Your task to perform on an android device: Go to settings Image 0: 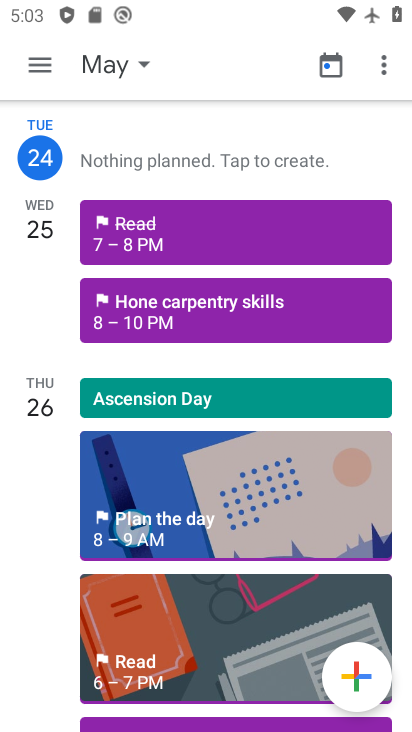
Step 0: drag from (342, 620) to (277, 225)
Your task to perform on an android device: Go to settings Image 1: 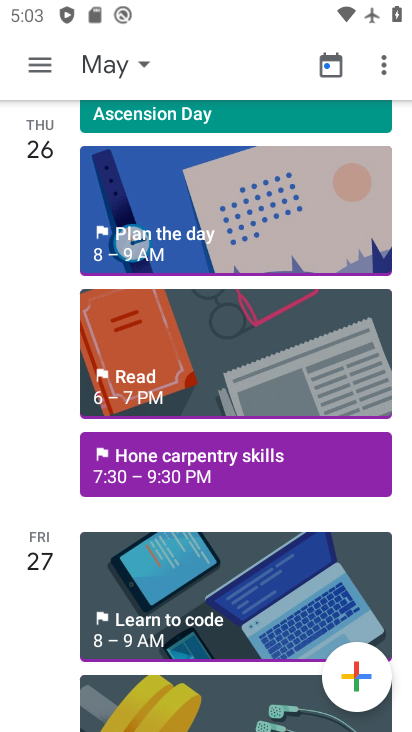
Step 1: press home button
Your task to perform on an android device: Go to settings Image 2: 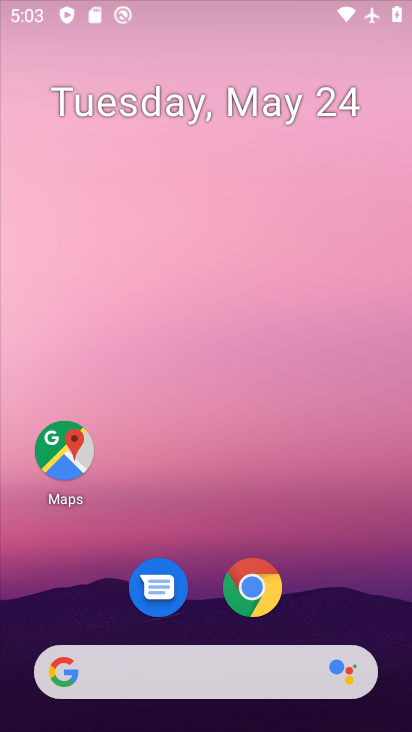
Step 2: drag from (312, 413) to (253, 51)
Your task to perform on an android device: Go to settings Image 3: 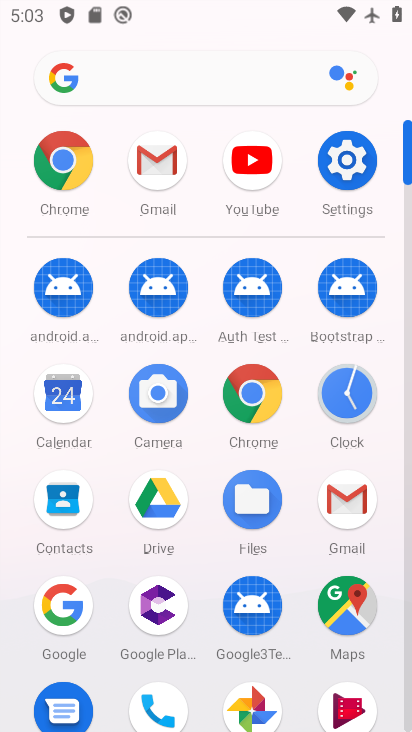
Step 3: click (338, 179)
Your task to perform on an android device: Go to settings Image 4: 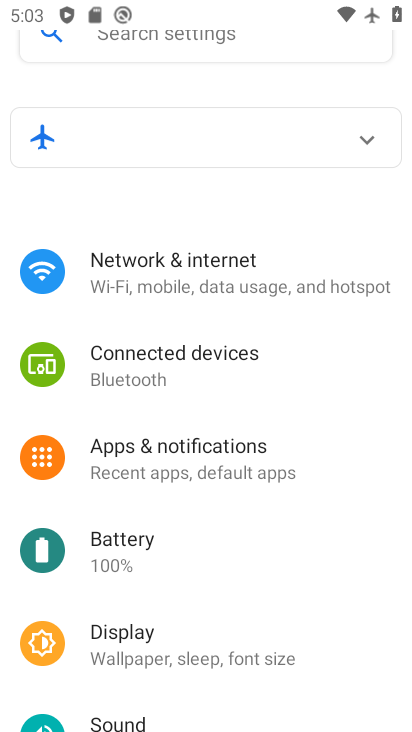
Step 4: task complete